Your task to perform on an android device: change text size in settings app Image 0: 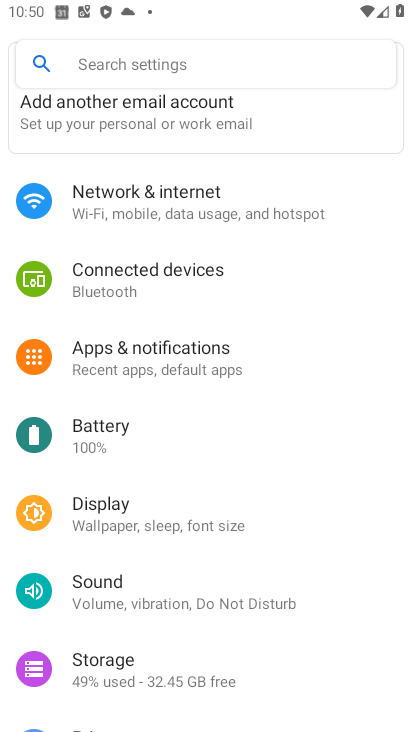
Step 0: click (215, 529)
Your task to perform on an android device: change text size in settings app Image 1: 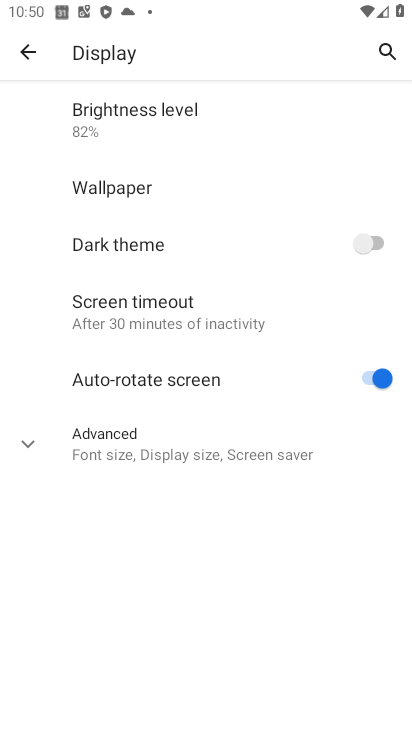
Step 1: click (185, 454)
Your task to perform on an android device: change text size in settings app Image 2: 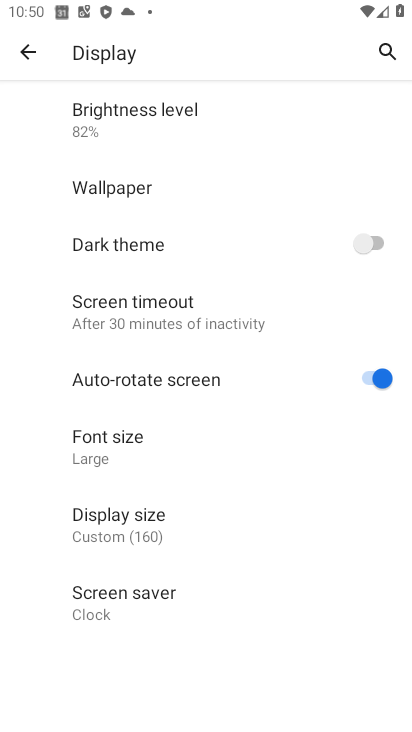
Step 2: click (153, 441)
Your task to perform on an android device: change text size in settings app Image 3: 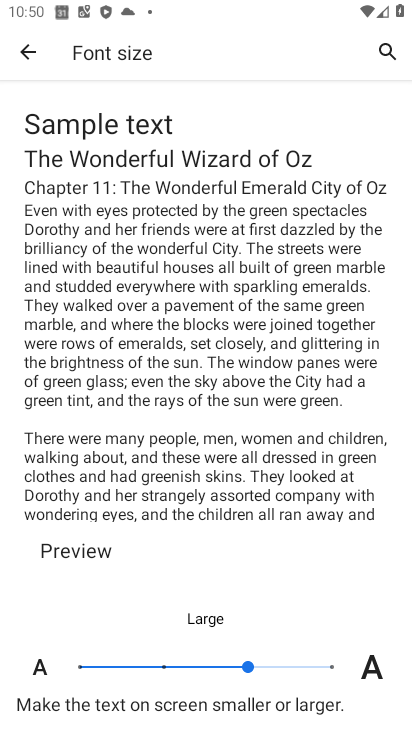
Step 3: click (85, 670)
Your task to perform on an android device: change text size in settings app Image 4: 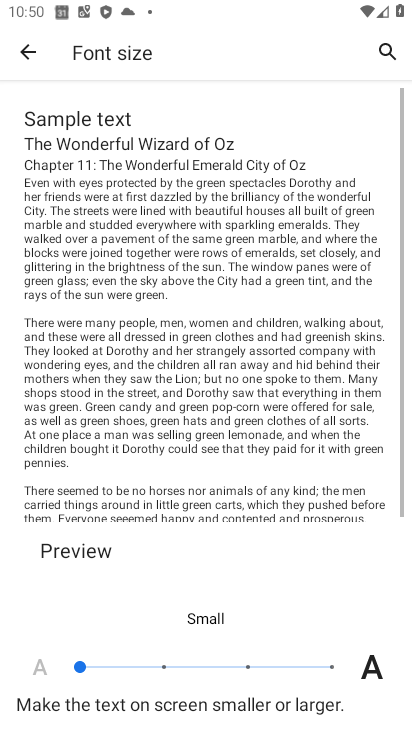
Step 4: task complete